Your task to perform on an android device: Open the Play Movies app and select the watchlist tab. Image 0: 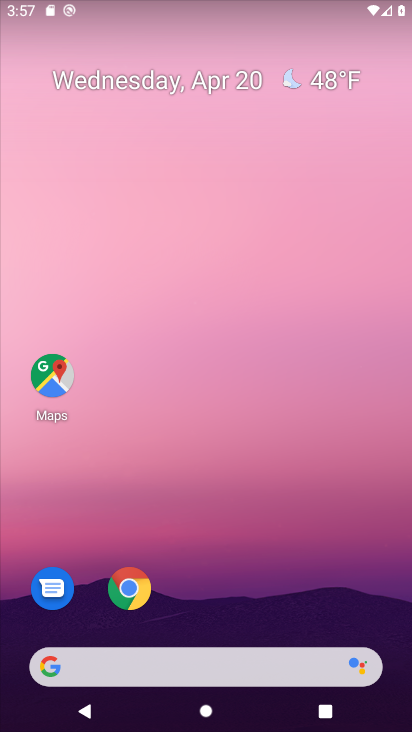
Step 0: drag from (336, 570) to (353, 89)
Your task to perform on an android device: Open the Play Movies app and select the watchlist tab. Image 1: 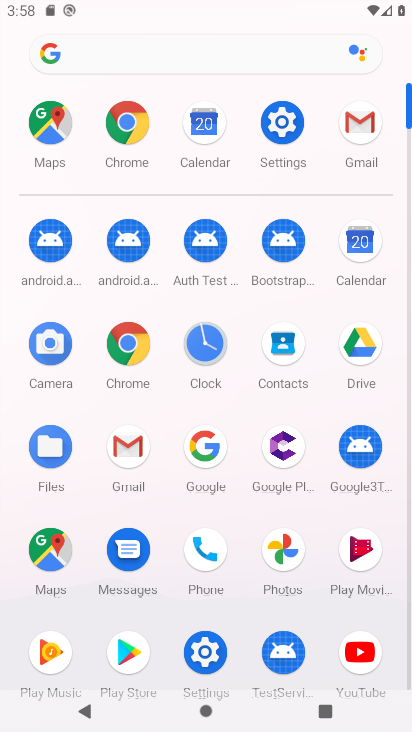
Step 1: click (366, 566)
Your task to perform on an android device: Open the Play Movies app and select the watchlist tab. Image 2: 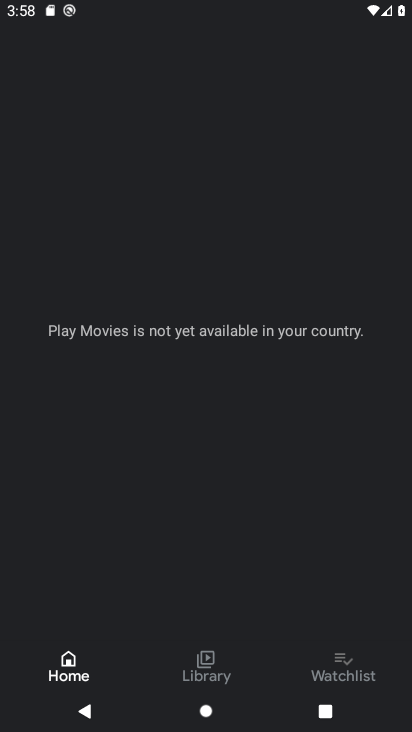
Step 2: click (343, 674)
Your task to perform on an android device: Open the Play Movies app and select the watchlist tab. Image 3: 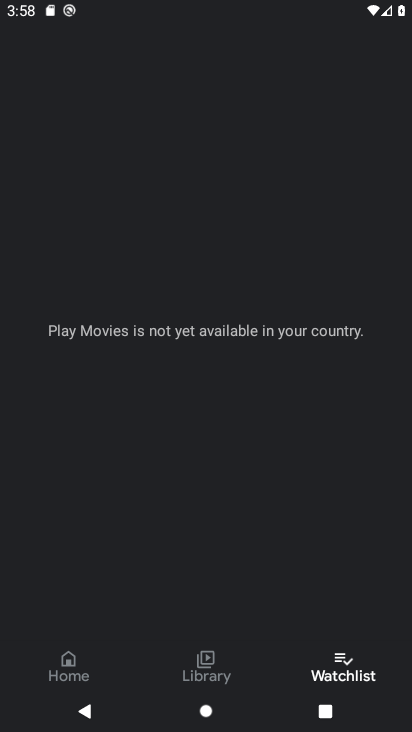
Step 3: task complete